Your task to perform on an android device: Open Google Maps and go to "Timeline" Image 0: 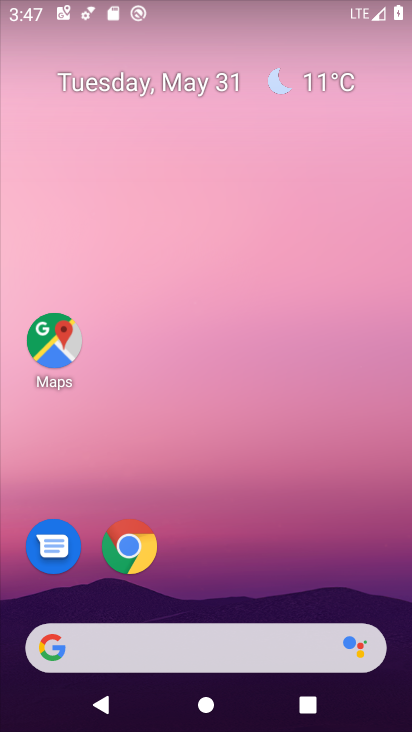
Step 0: drag from (283, 459) to (179, 19)
Your task to perform on an android device: Open Google Maps and go to "Timeline" Image 1: 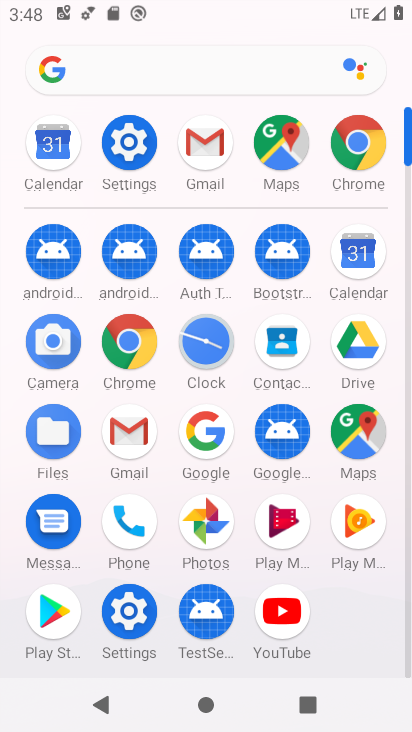
Step 1: click (346, 433)
Your task to perform on an android device: Open Google Maps and go to "Timeline" Image 2: 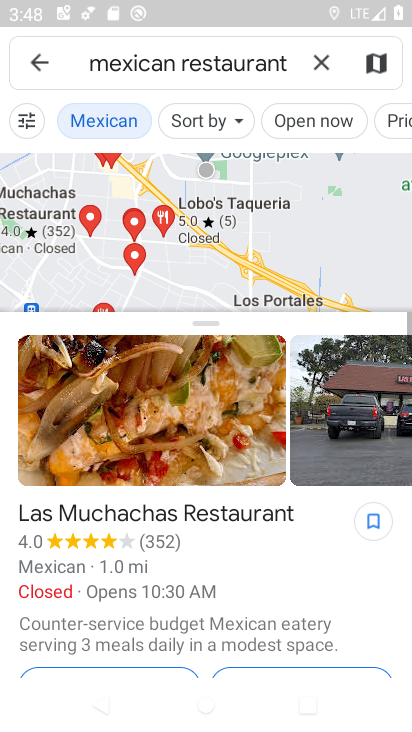
Step 2: click (37, 77)
Your task to perform on an android device: Open Google Maps and go to "Timeline" Image 3: 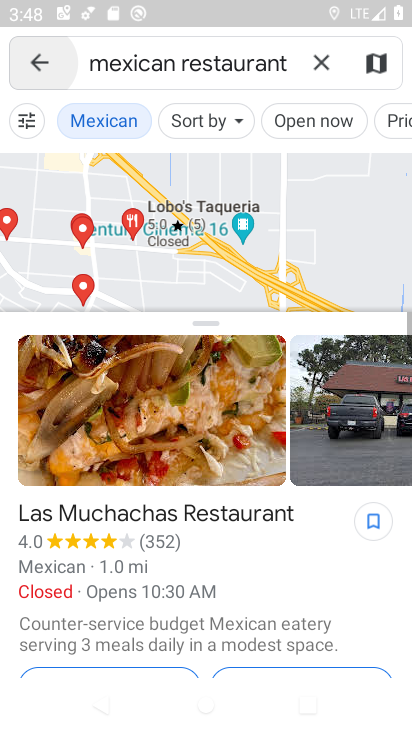
Step 3: click (41, 64)
Your task to perform on an android device: Open Google Maps and go to "Timeline" Image 4: 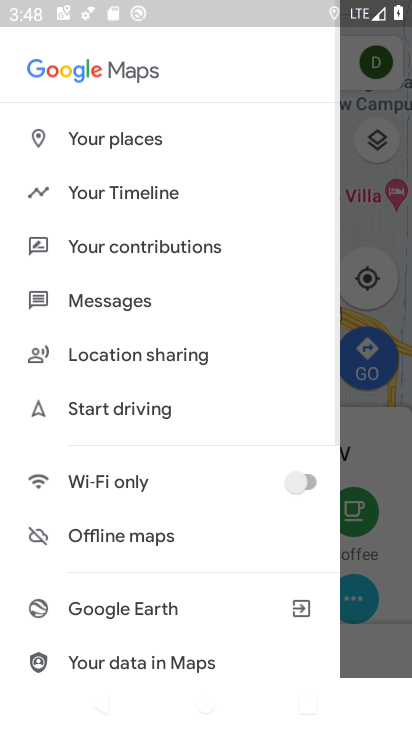
Step 4: click (104, 188)
Your task to perform on an android device: Open Google Maps and go to "Timeline" Image 5: 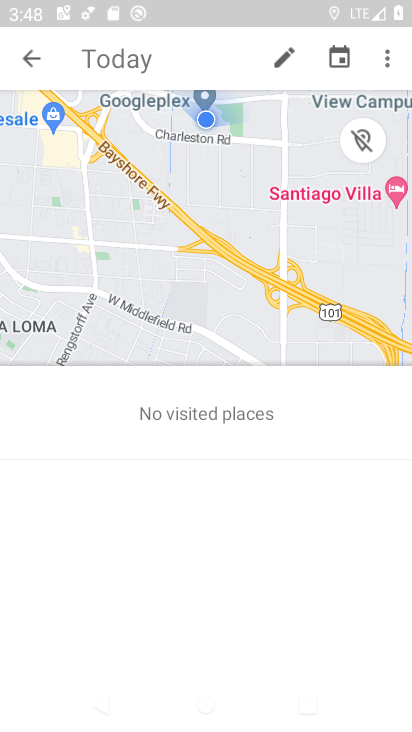
Step 5: task complete